Your task to perform on an android device: Turn on notifications for the Google Maps app Image 0: 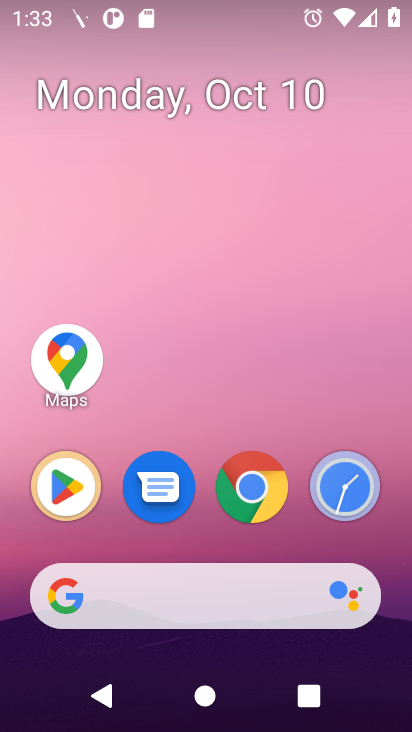
Step 0: drag from (300, 673) to (291, 269)
Your task to perform on an android device: Turn on notifications for the Google Maps app Image 1: 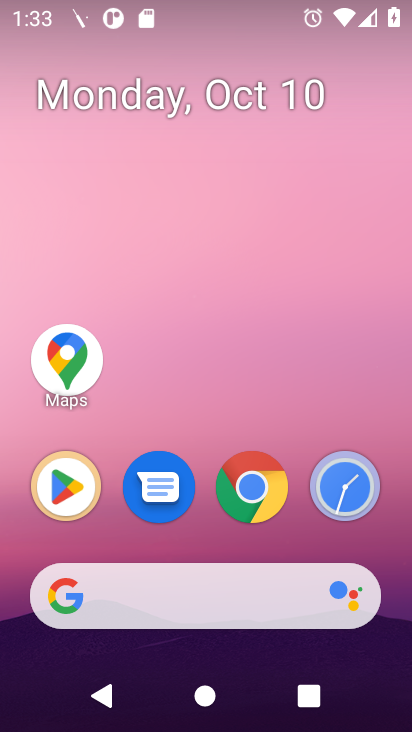
Step 1: drag from (188, 681) to (200, 61)
Your task to perform on an android device: Turn on notifications for the Google Maps app Image 2: 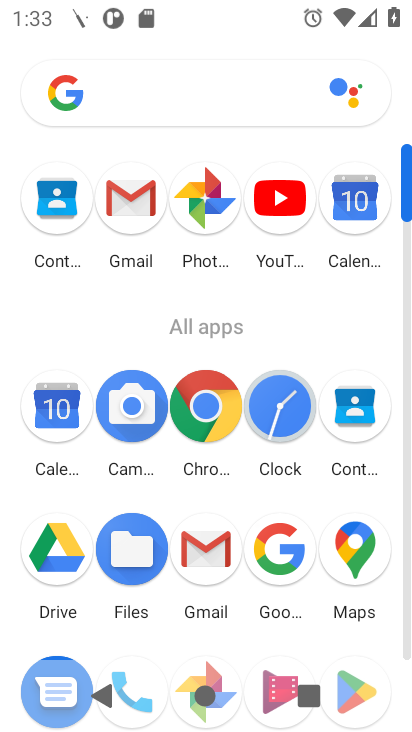
Step 2: drag from (200, 467) to (200, 254)
Your task to perform on an android device: Turn on notifications for the Google Maps app Image 3: 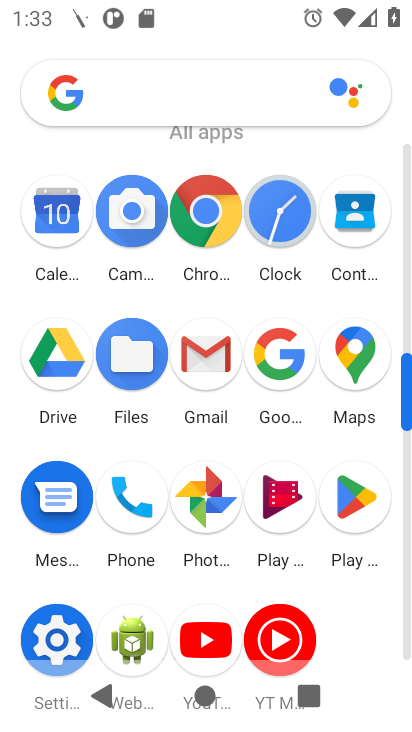
Step 3: click (51, 634)
Your task to perform on an android device: Turn on notifications for the Google Maps app Image 4: 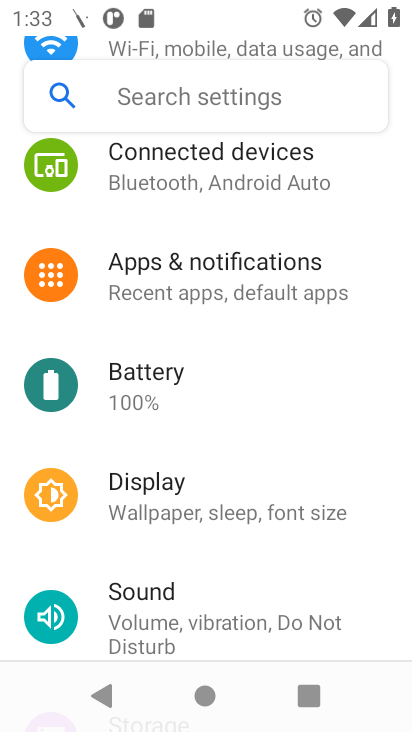
Step 4: drag from (222, 587) to (213, 144)
Your task to perform on an android device: Turn on notifications for the Google Maps app Image 5: 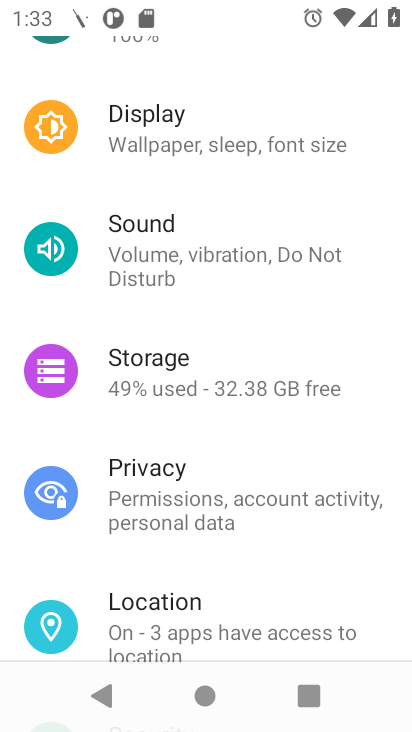
Step 5: drag from (243, 580) to (236, 180)
Your task to perform on an android device: Turn on notifications for the Google Maps app Image 6: 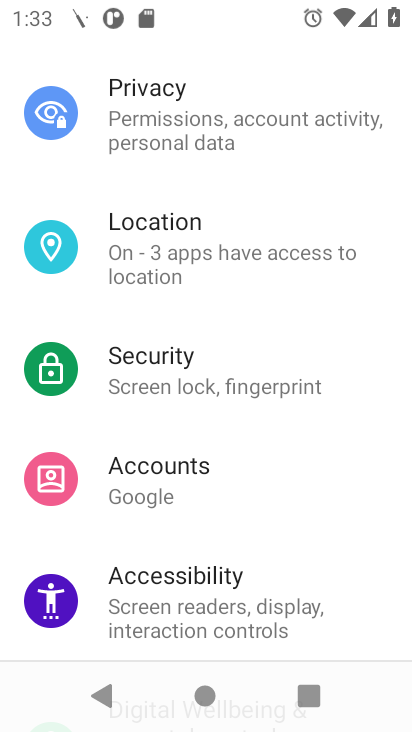
Step 6: drag from (237, 284) to (263, 556)
Your task to perform on an android device: Turn on notifications for the Google Maps app Image 7: 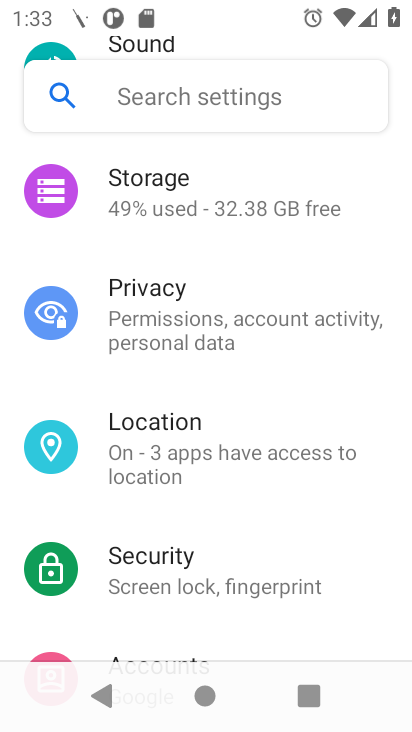
Step 7: drag from (255, 283) to (254, 516)
Your task to perform on an android device: Turn on notifications for the Google Maps app Image 8: 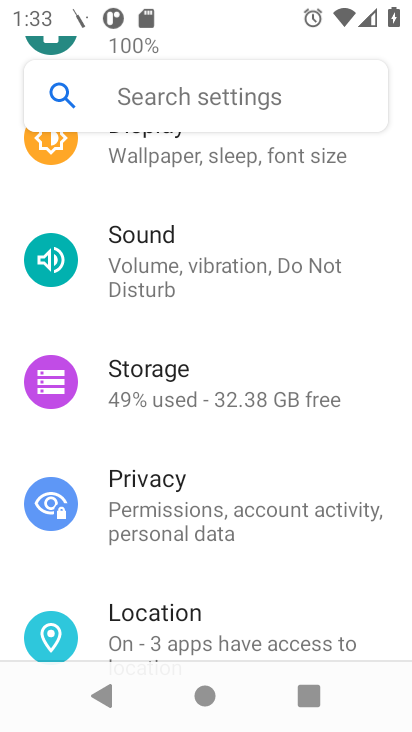
Step 8: drag from (247, 292) to (263, 676)
Your task to perform on an android device: Turn on notifications for the Google Maps app Image 9: 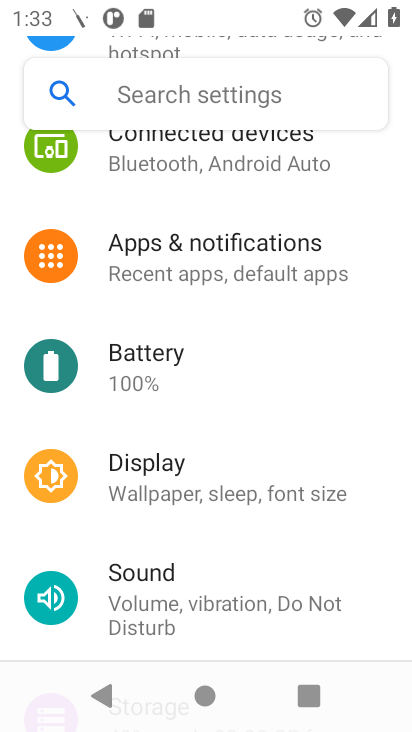
Step 9: click (225, 276)
Your task to perform on an android device: Turn on notifications for the Google Maps app Image 10: 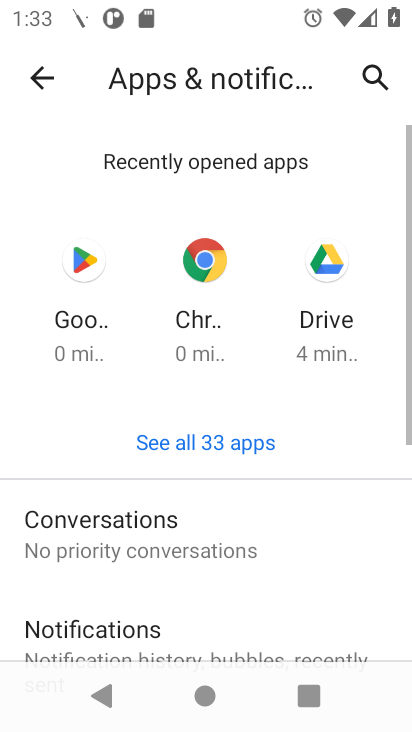
Step 10: click (225, 451)
Your task to perform on an android device: Turn on notifications for the Google Maps app Image 11: 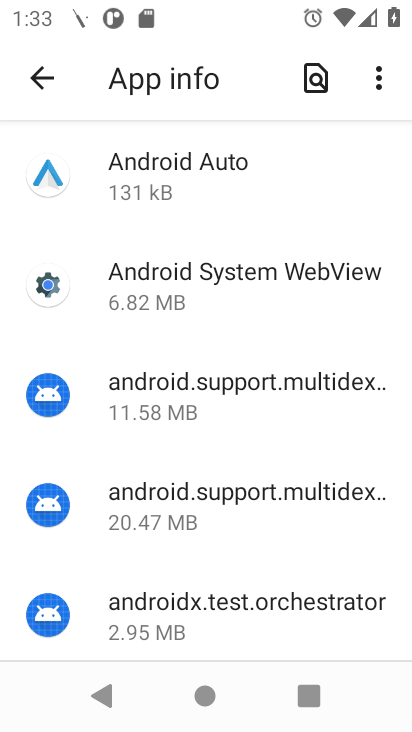
Step 11: drag from (232, 555) to (221, 222)
Your task to perform on an android device: Turn on notifications for the Google Maps app Image 12: 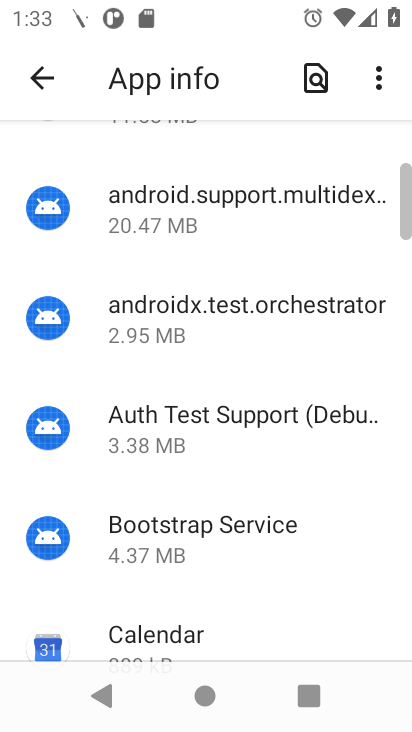
Step 12: drag from (232, 505) to (234, 143)
Your task to perform on an android device: Turn on notifications for the Google Maps app Image 13: 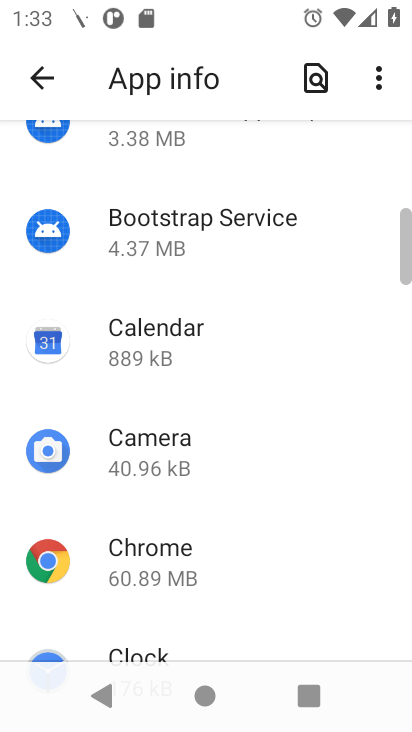
Step 13: drag from (199, 577) to (215, 72)
Your task to perform on an android device: Turn on notifications for the Google Maps app Image 14: 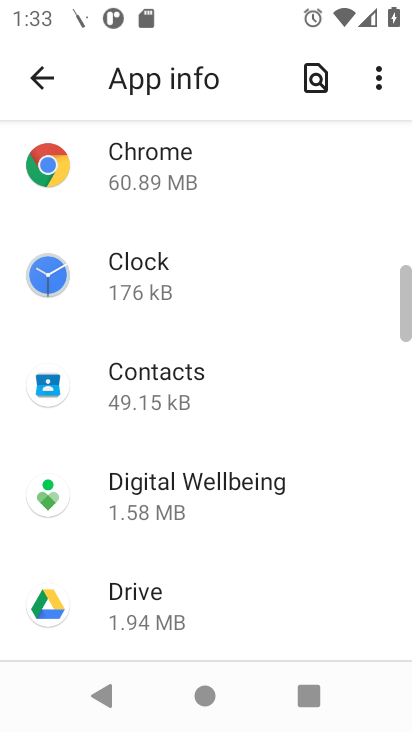
Step 14: drag from (227, 544) to (226, 135)
Your task to perform on an android device: Turn on notifications for the Google Maps app Image 15: 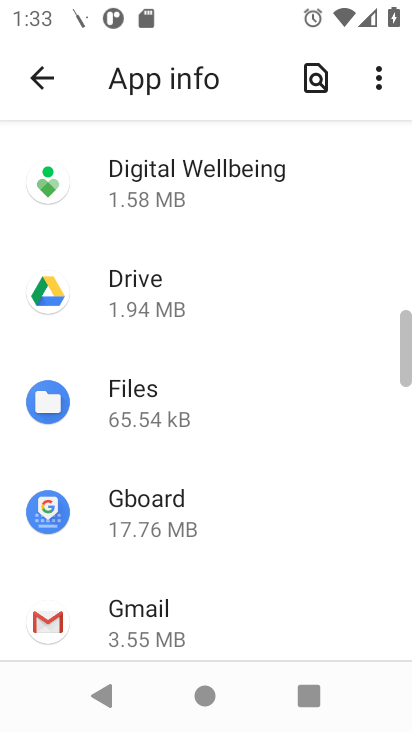
Step 15: drag from (242, 608) to (270, 121)
Your task to perform on an android device: Turn on notifications for the Google Maps app Image 16: 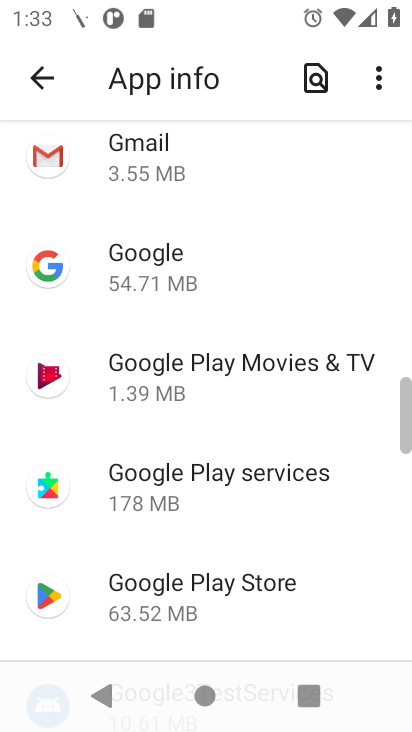
Step 16: drag from (192, 520) to (175, 84)
Your task to perform on an android device: Turn on notifications for the Google Maps app Image 17: 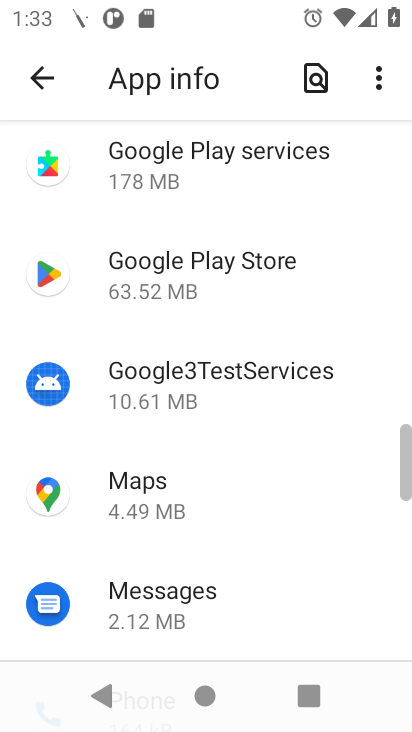
Step 17: click (167, 508)
Your task to perform on an android device: Turn on notifications for the Google Maps app Image 18: 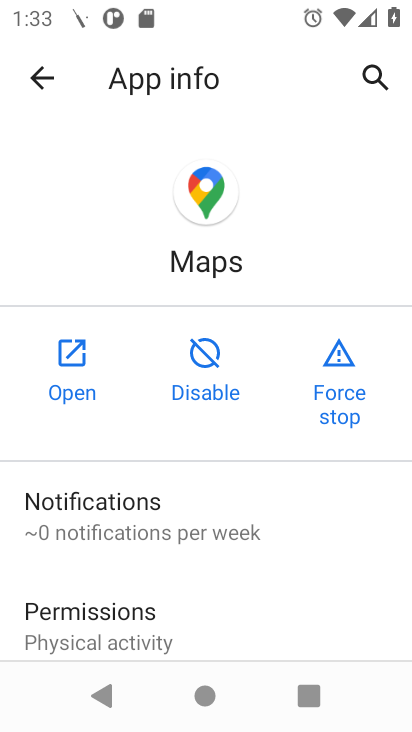
Step 18: click (245, 511)
Your task to perform on an android device: Turn on notifications for the Google Maps app Image 19: 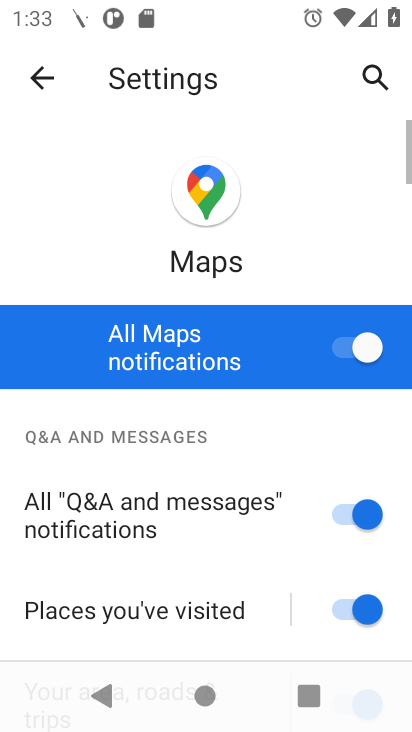
Step 19: click (348, 350)
Your task to perform on an android device: Turn on notifications for the Google Maps app Image 20: 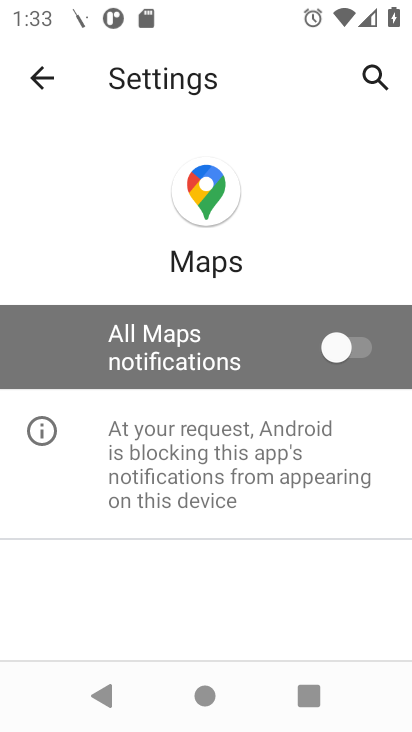
Step 20: click (348, 350)
Your task to perform on an android device: Turn on notifications for the Google Maps app Image 21: 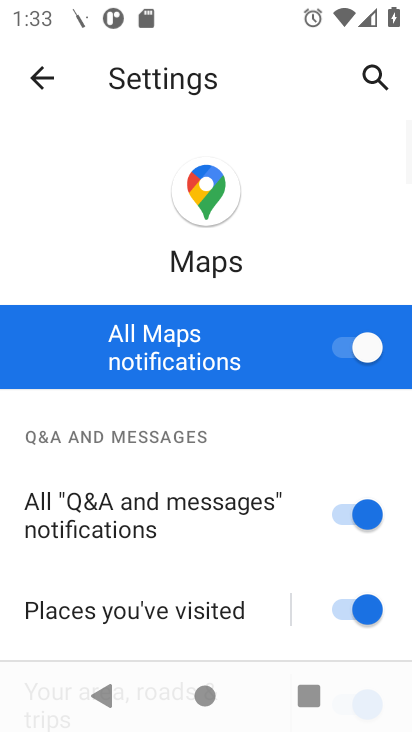
Step 21: drag from (260, 650) to (266, 200)
Your task to perform on an android device: Turn on notifications for the Google Maps app Image 22: 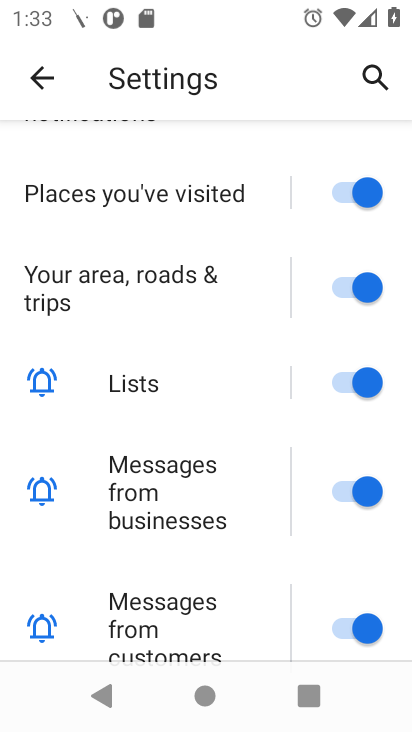
Step 22: drag from (224, 605) to (224, 180)
Your task to perform on an android device: Turn on notifications for the Google Maps app Image 23: 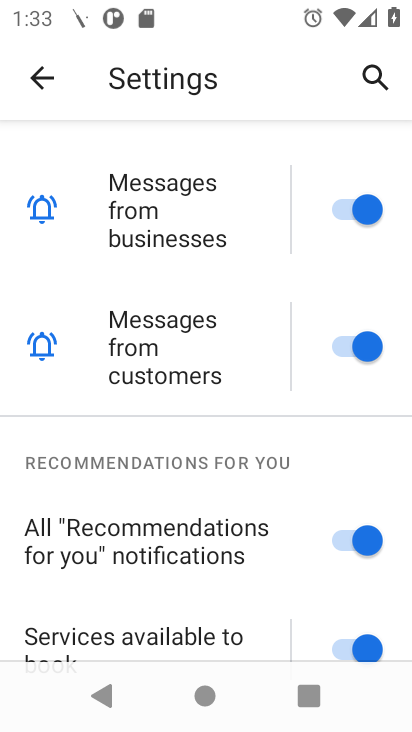
Step 23: click (28, 80)
Your task to perform on an android device: Turn on notifications for the Google Maps app Image 24: 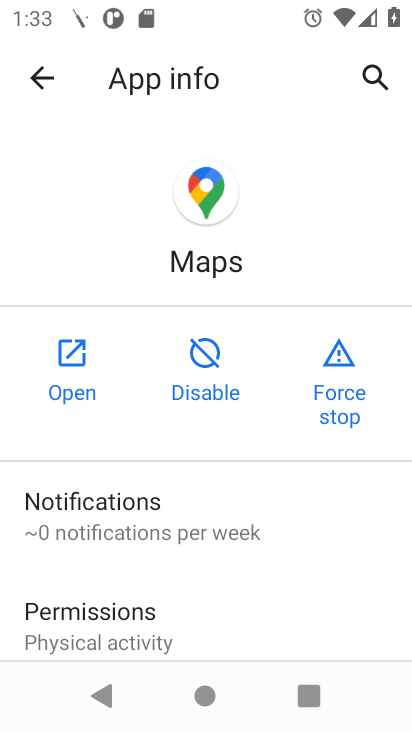
Step 24: click (35, 88)
Your task to perform on an android device: Turn on notifications for the Google Maps app Image 25: 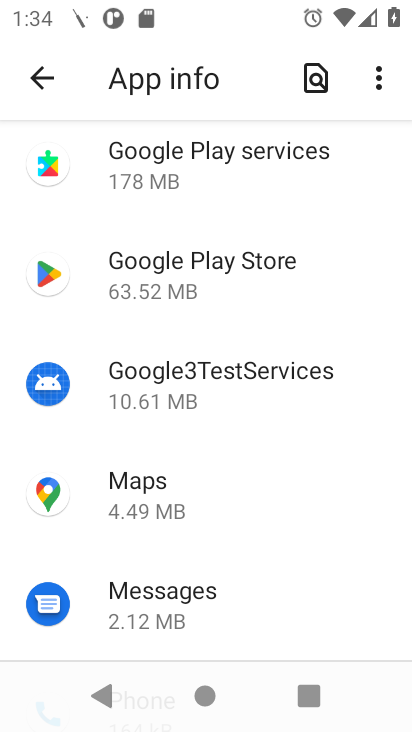
Step 25: task complete